Your task to perform on an android device: Empty the shopping cart on newegg. Search for amazon basics triple a on newegg, select the first entry, and add it to the cart. Image 0: 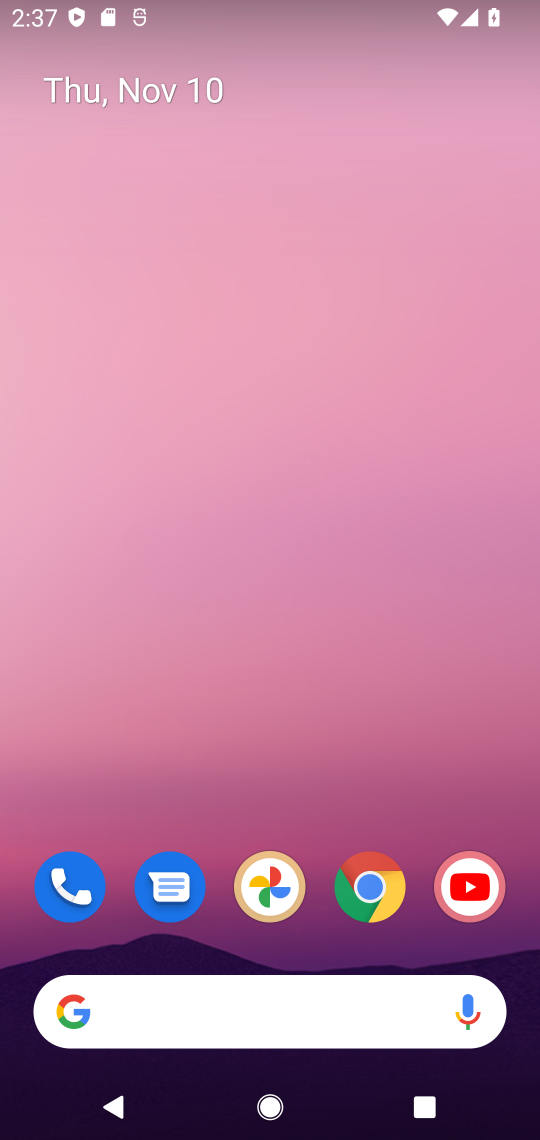
Step 0: drag from (315, 968) to (346, 106)
Your task to perform on an android device: Empty the shopping cart on newegg. Search for amazon basics triple a on newegg, select the first entry, and add it to the cart. Image 1: 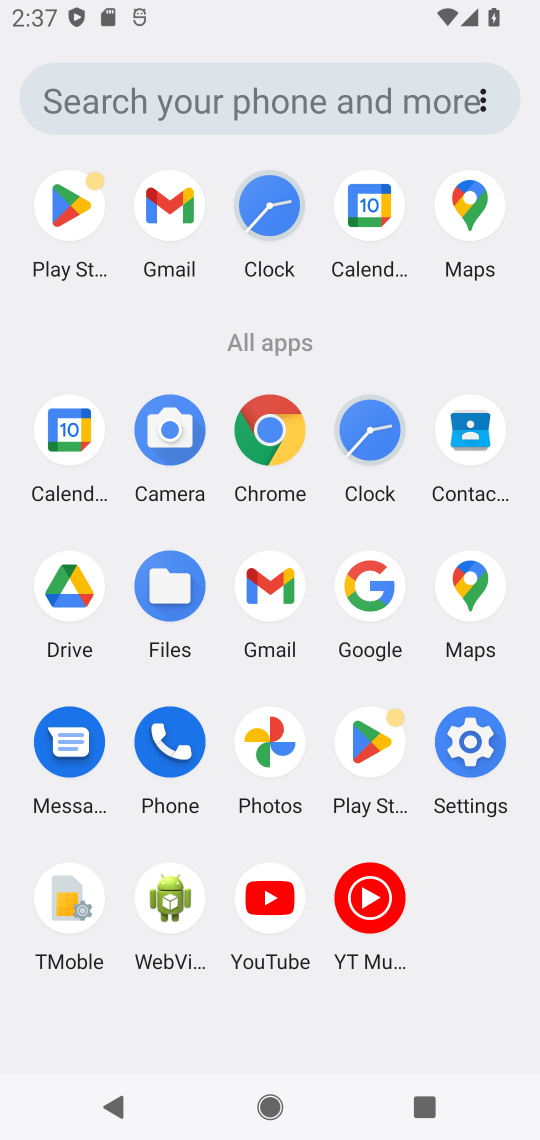
Step 1: click (265, 433)
Your task to perform on an android device: Empty the shopping cart on newegg. Search for amazon basics triple a on newegg, select the first entry, and add it to the cart. Image 2: 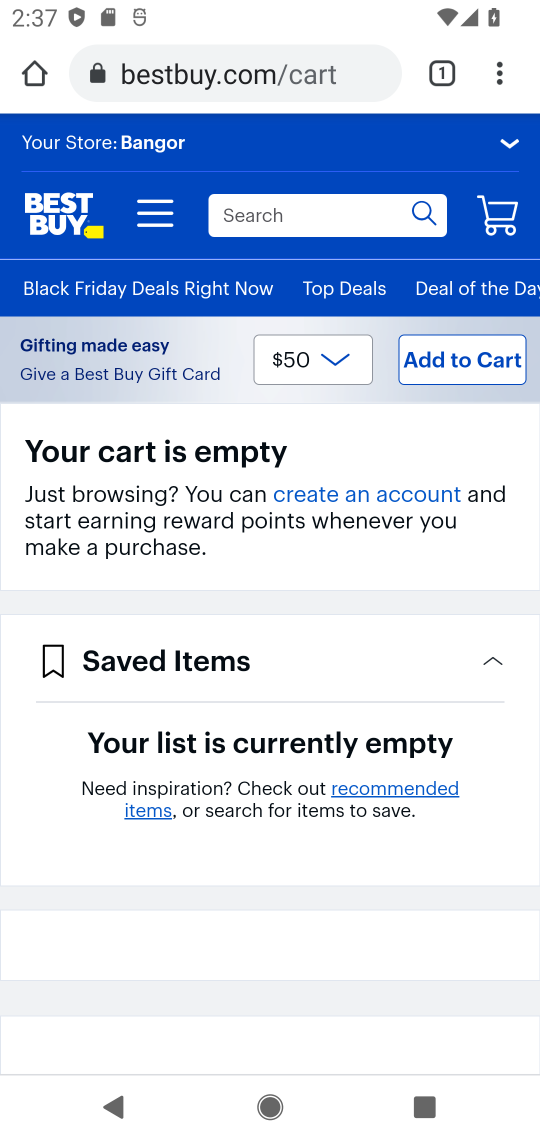
Step 2: click (318, 75)
Your task to perform on an android device: Empty the shopping cart on newegg. Search for amazon basics triple a on newegg, select the first entry, and add it to the cart. Image 3: 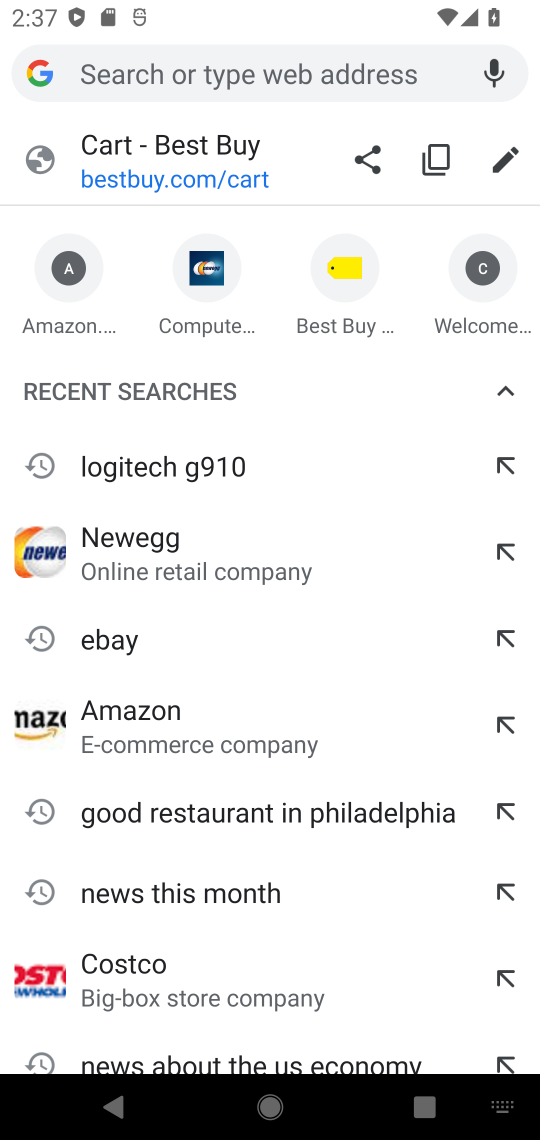
Step 3: type "newegg.com"
Your task to perform on an android device: Empty the shopping cart on newegg. Search for amazon basics triple a on newegg, select the first entry, and add it to the cart. Image 4: 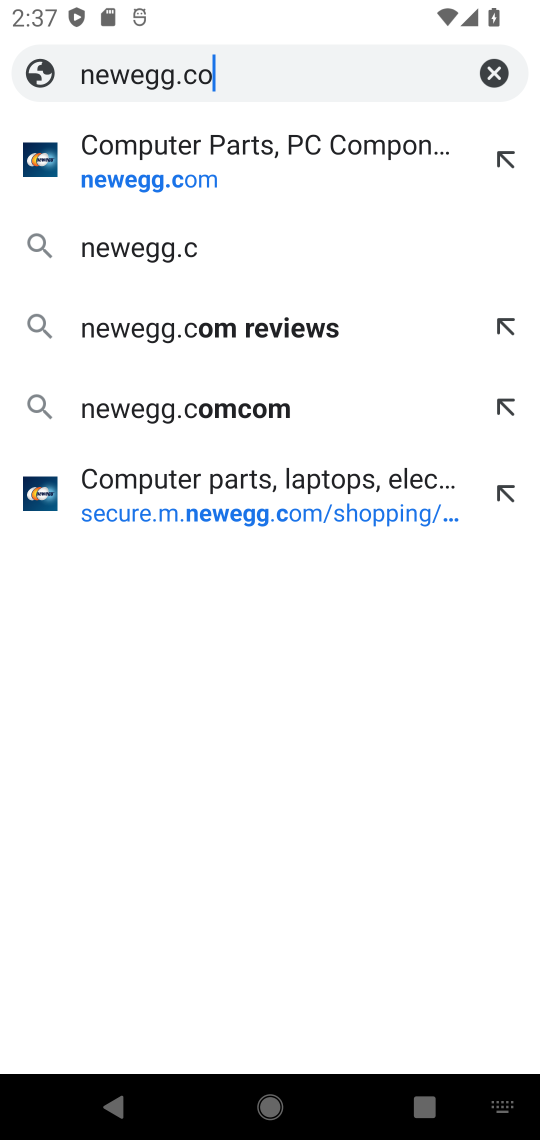
Step 4: press enter
Your task to perform on an android device: Empty the shopping cart on newegg. Search for amazon basics triple a on newegg, select the first entry, and add it to the cart. Image 5: 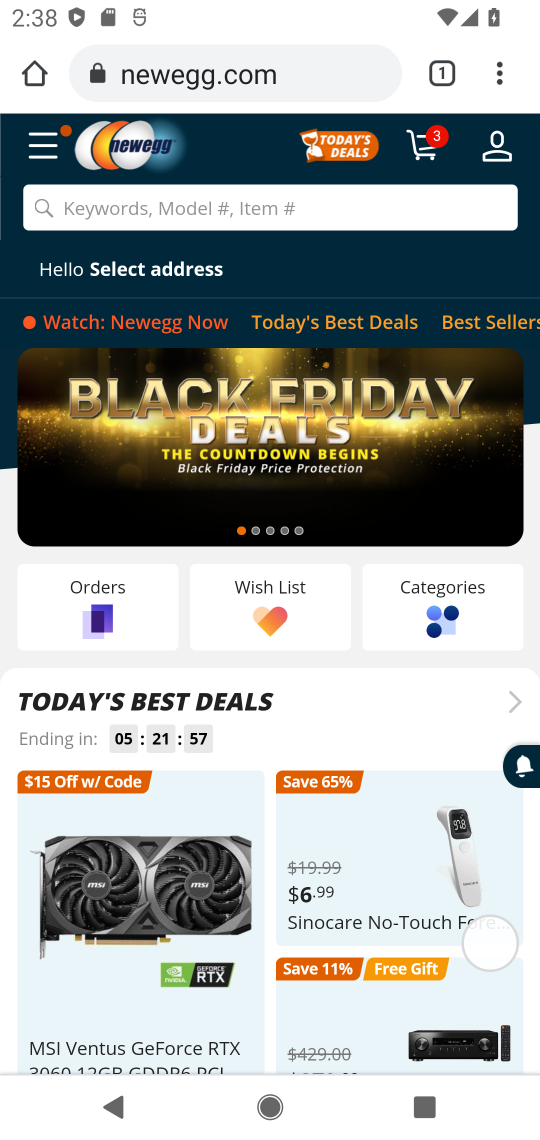
Step 5: click (418, 146)
Your task to perform on an android device: Empty the shopping cart on newegg. Search for amazon basics triple a on newegg, select the first entry, and add it to the cart. Image 6: 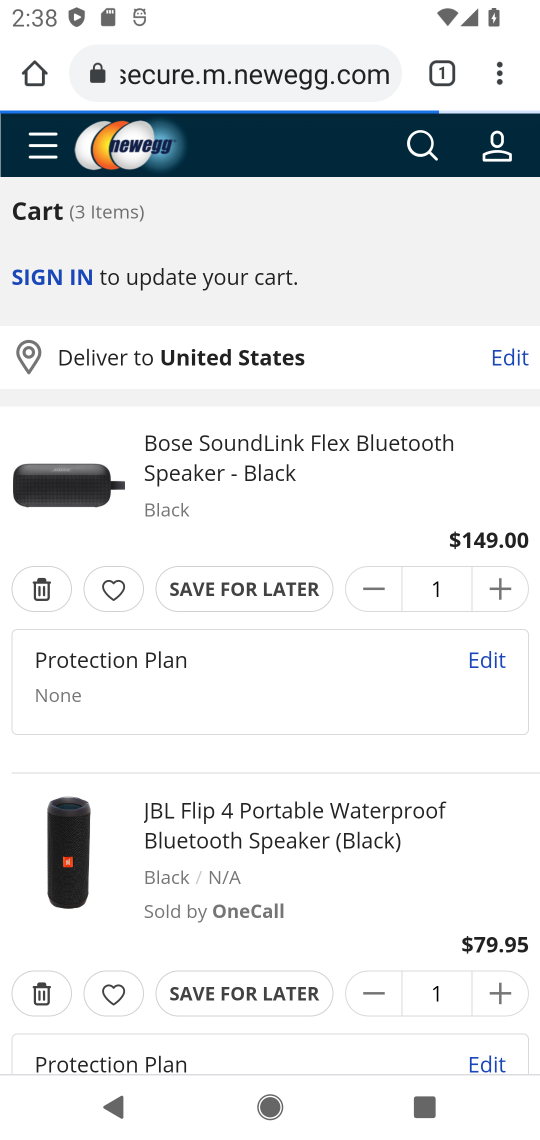
Step 6: click (9, 591)
Your task to perform on an android device: Empty the shopping cart on newegg. Search for amazon basics triple a on newegg, select the first entry, and add it to the cart. Image 7: 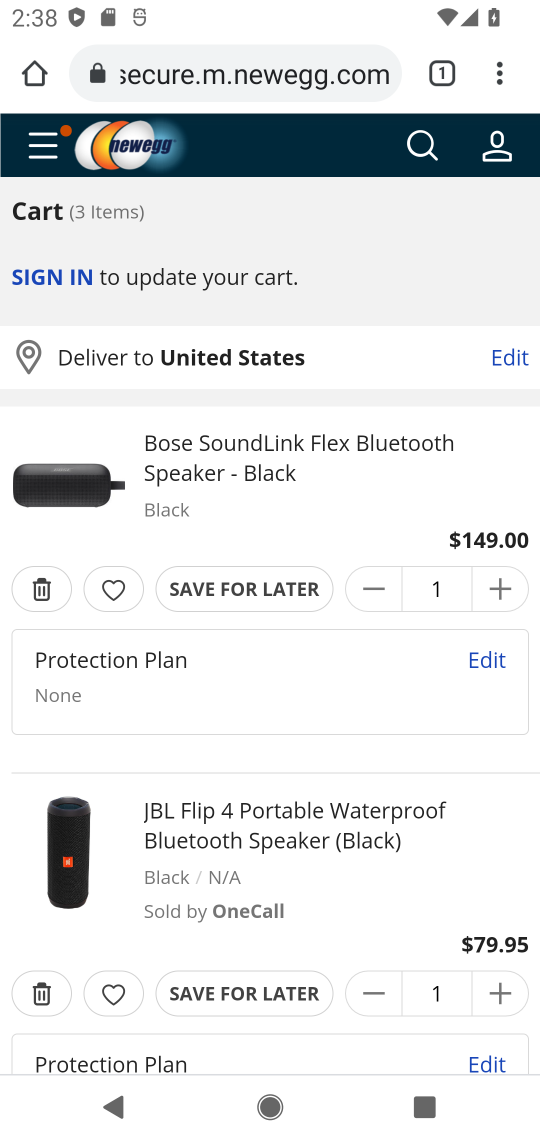
Step 7: click (38, 577)
Your task to perform on an android device: Empty the shopping cart on newegg. Search for amazon basics triple a on newegg, select the first entry, and add it to the cart. Image 8: 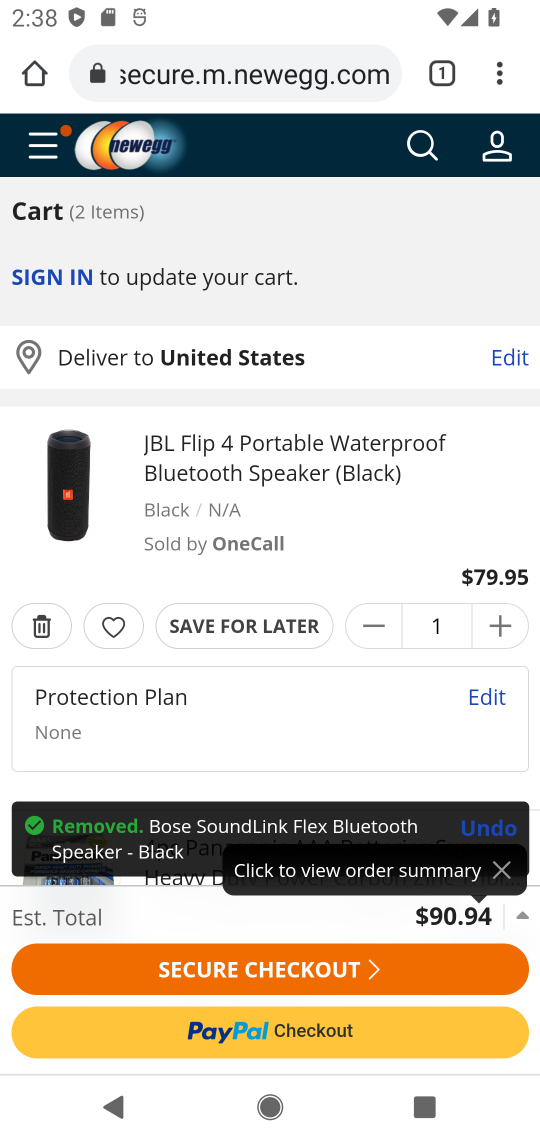
Step 8: click (38, 614)
Your task to perform on an android device: Empty the shopping cart on newegg. Search for amazon basics triple a on newegg, select the first entry, and add it to the cart. Image 9: 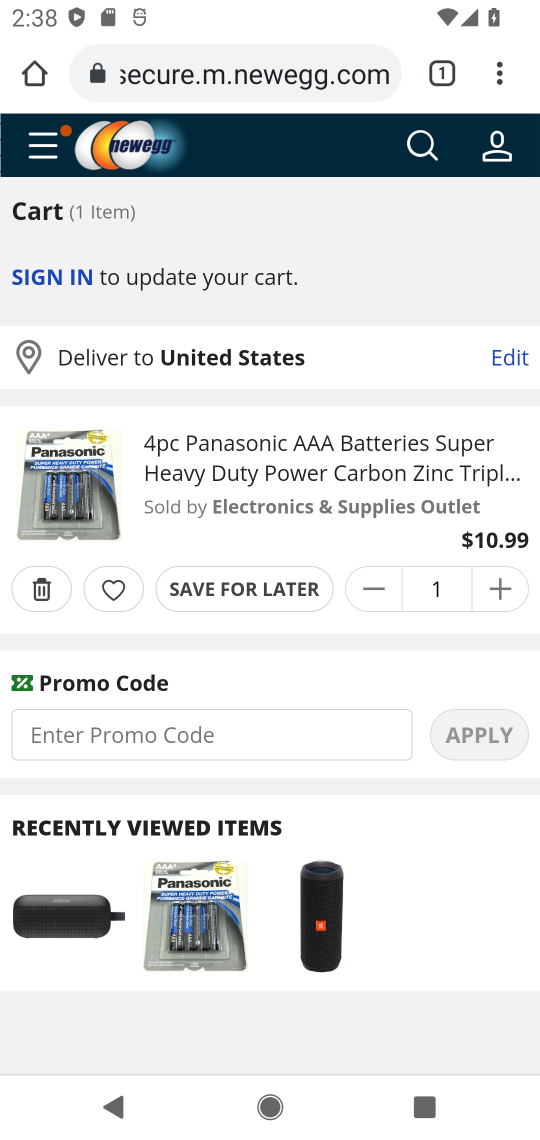
Step 9: click (40, 593)
Your task to perform on an android device: Empty the shopping cart on newegg. Search for amazon basics triple a on newegg, select the first entry, and add it to the cart. Image 10: 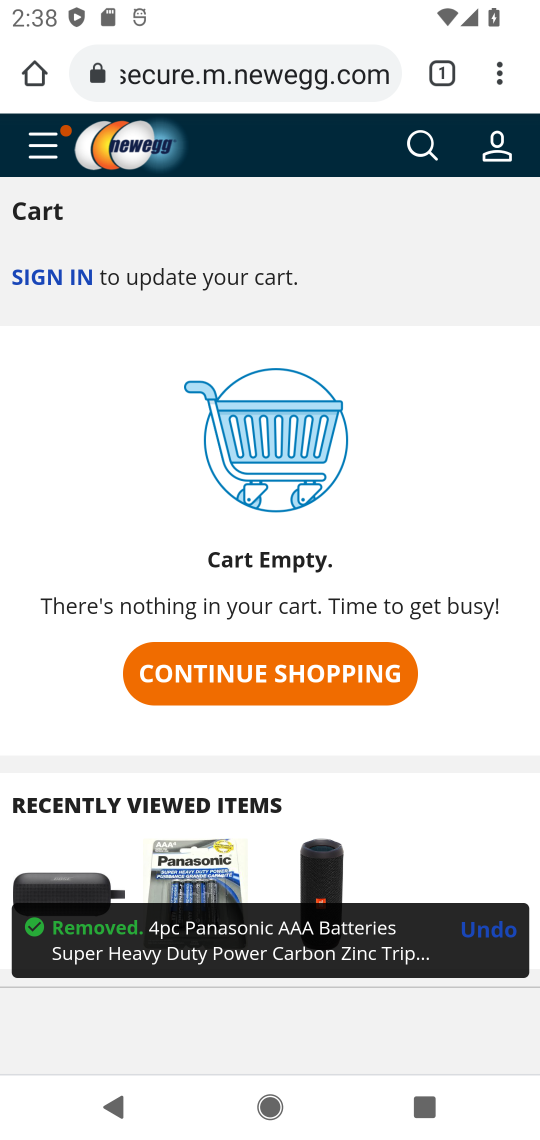
Step 10: click (437, 133)
Your task to perform on an android device: Empty the shopping cart on newegg. Search for amazon basics triple a on newegg, select the first entry, and add it to the cart. Image 11: 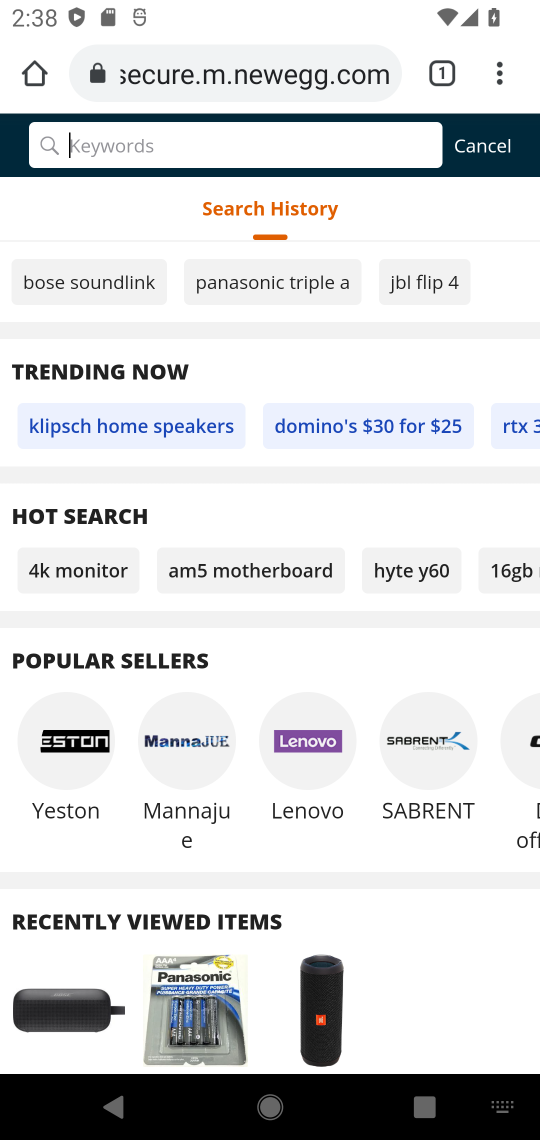
Step 11: type "amazon basics triple  a"
Your task to perform on an android device: Empty the shopping cart on newegg. Search for amazon basics triple a on newegg, select the first entry, and add it to the cart. Image 12: 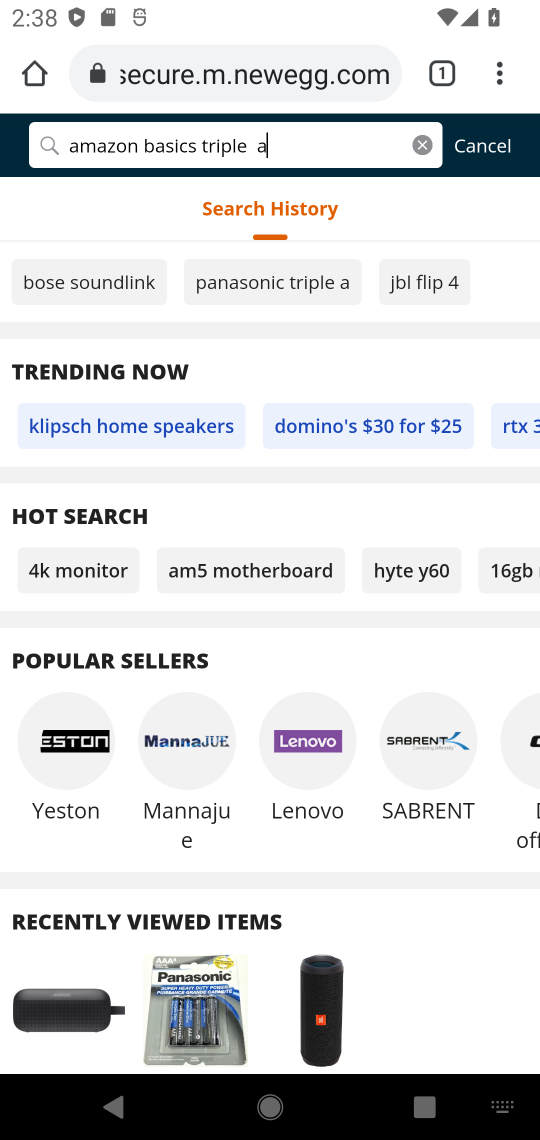
Step 12: press enter
Your task to perform on an android device: Empty the shopping cart on newegg. Search for amazon basics triple a on newegg, select the first entry, and add it to the cart. Image 13: 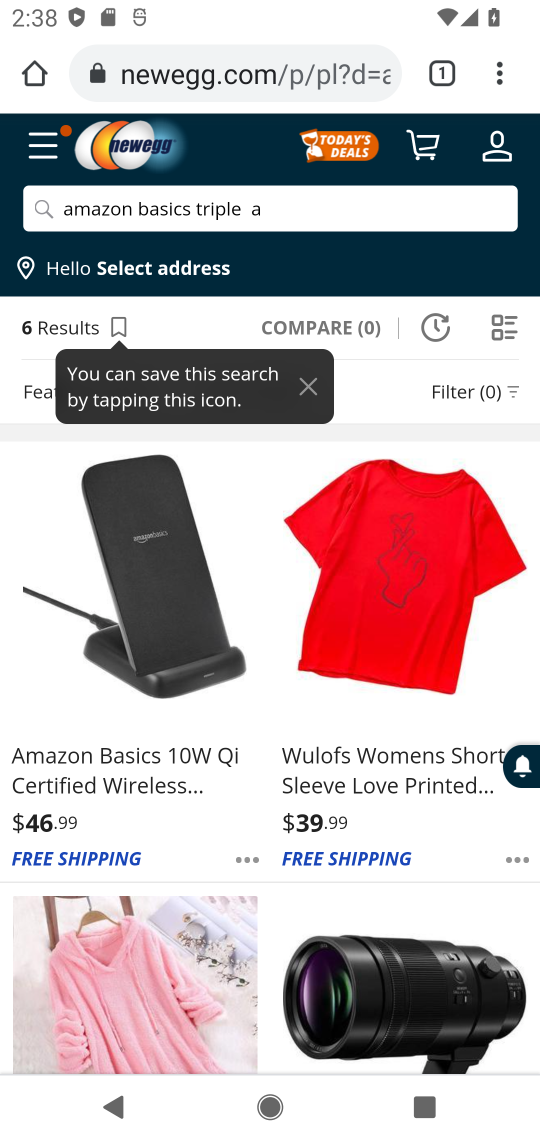
Step 13: task complete